Your task to perform on an android device: Open Yahoo.com Image 0: 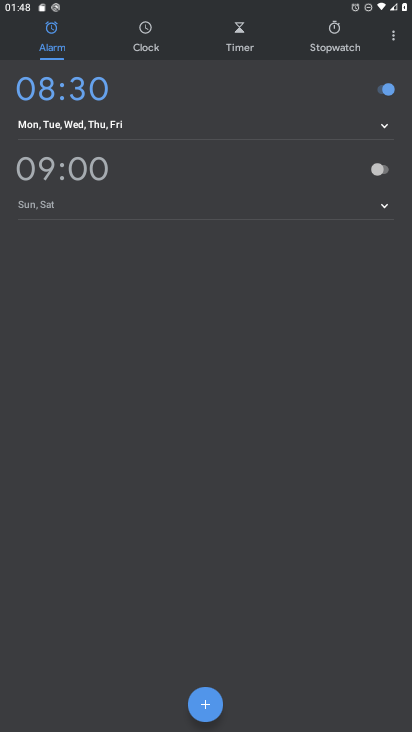
Step 0: press home button
Your task to perform on an android device: Open Yahoo.com Image 1: 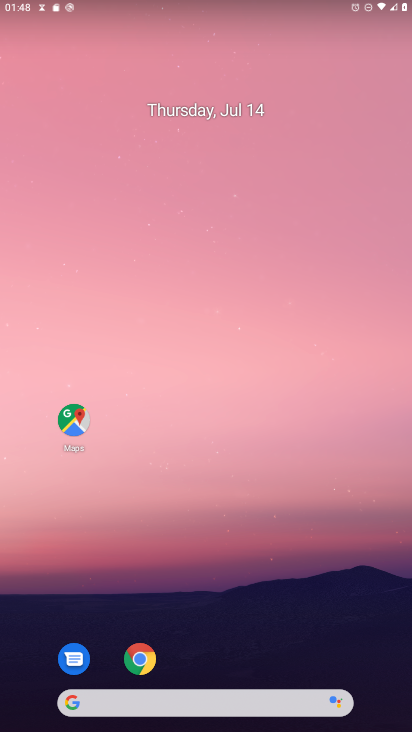
Step 1: click (149, 708)
Your task to perform on an android device: Open Yahoo.com Image 2: 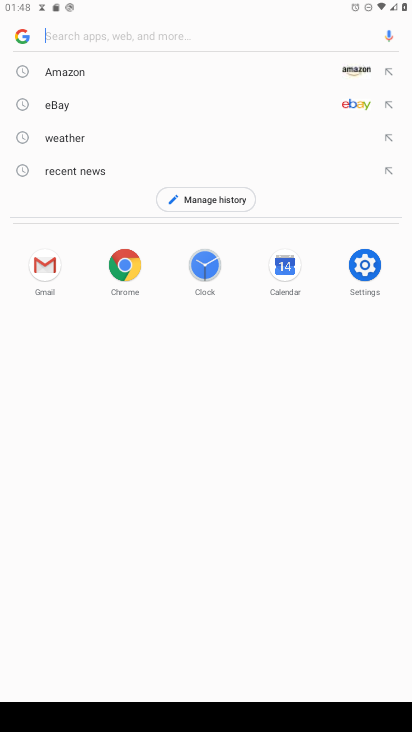
Step 2: type "Yahoo.com"
Your task to perform on an android device: Open Yahoo.com Image 3: 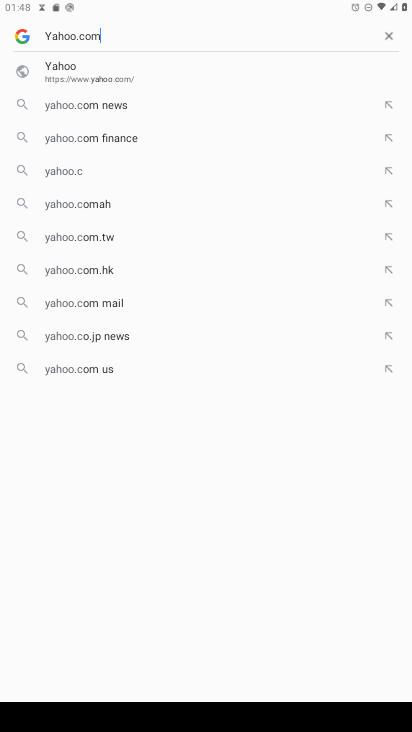
Step 3: type ""
Your task to perform on an android device: Open Yahoo.com Image 4: 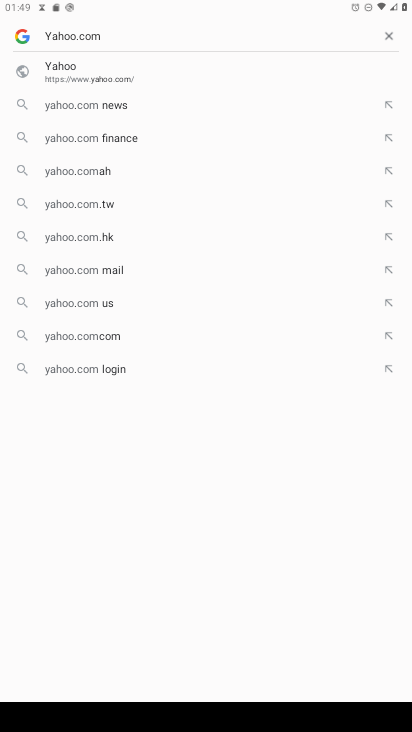
Step 4: click (50, 70)
Your task to perform on an android device: Open Yahoo.com Image 5: 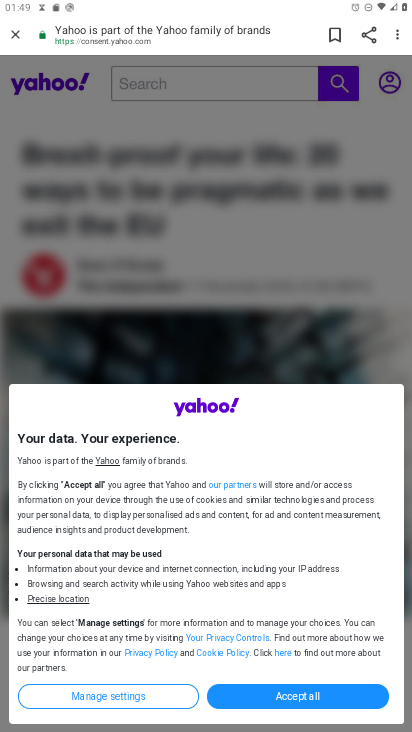
Step 5: task complete